Your task to perform on an android device: Search for seafood restaurants on Google Maps Image 0: 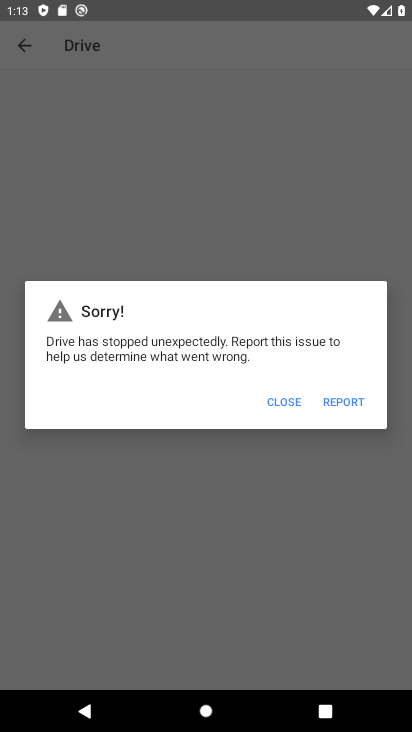
Step 0: press home button
Your task to perform on an android device: Search for seafood restaurants on Google Maps Image 1: 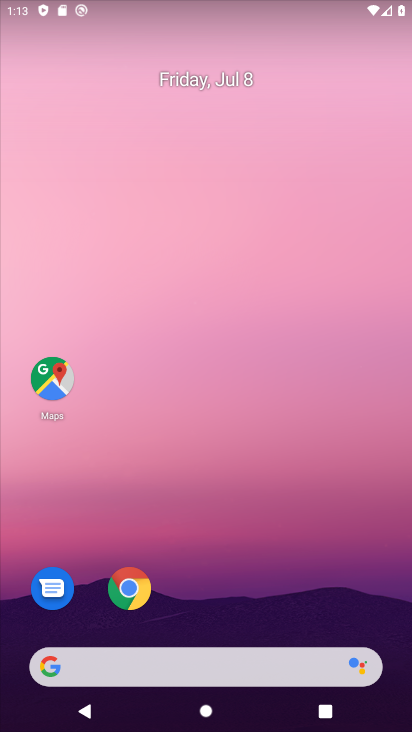
Step 1: drag from (177, 642) to (244, 275)
Your task to perform on an android device: Search for seafood restaurants on Google Maps Image 2: 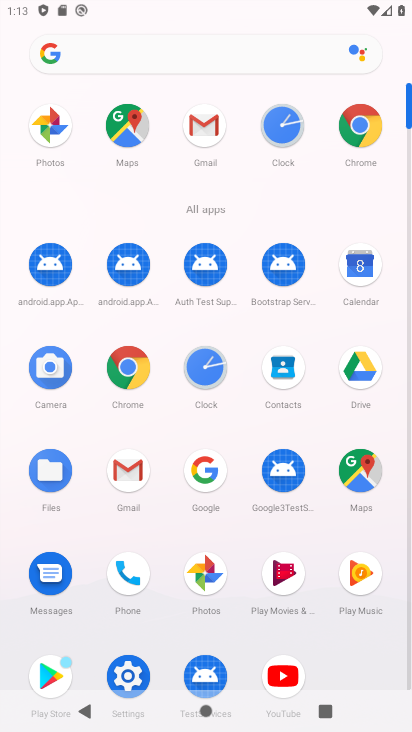
Step 2: click (360, 471)
Your task to perform on an android device: Search for seafood restaurants on Google Maps Image 3: 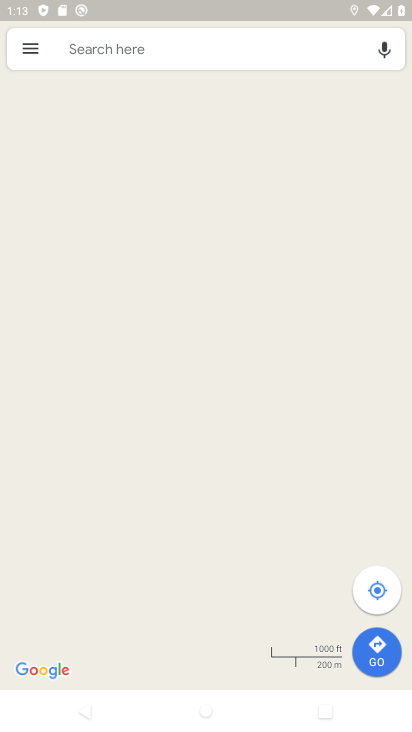
Step 3: click (135, 65)
Your task to perform on an android device: Search for seafood restaurants on Google Maps Image 4: 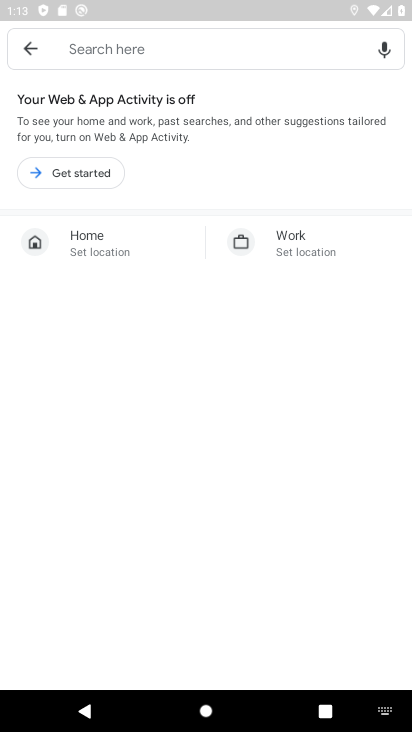
Step 4: type "seafood restaurants"
Your task to perform on an android device: Search for seafood restaurants on Google Maps Image 5: 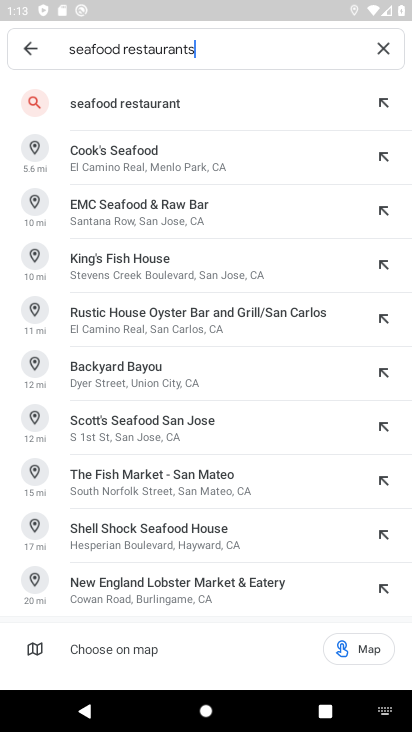
Step 5: click (193, 117)
Your task to perform on an android device: Search for seafood restaurants on Google Maps Image 6: 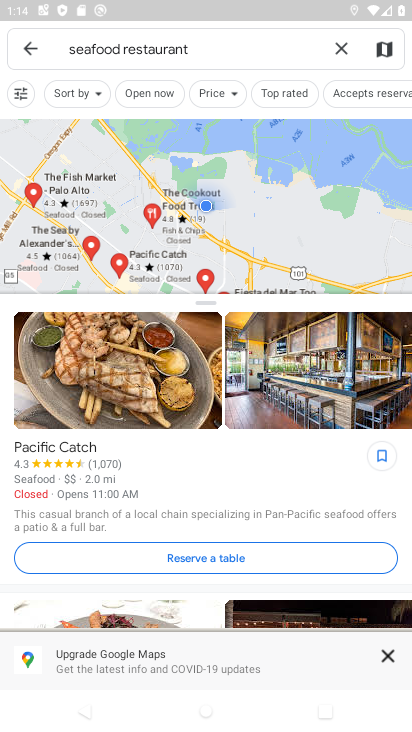
Step 6: click (383, 658)
Your task to perform on an android device: Search for seafood restaurants on Google Maps Image 7: 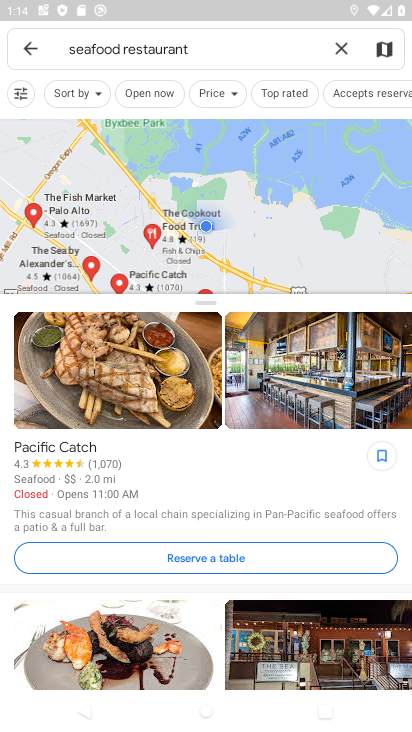
Step 7: task complete